Your task to perform on an android device: turn on priority inbox in the gmail app Image 0: 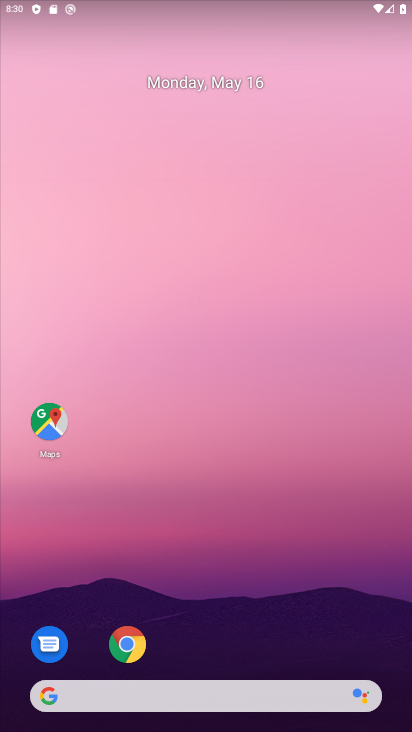
Step 0: drag from (170, 725) to (263, 0)
Your task to perform on an android device: turn on priority inbox in the gmail app Image 1: 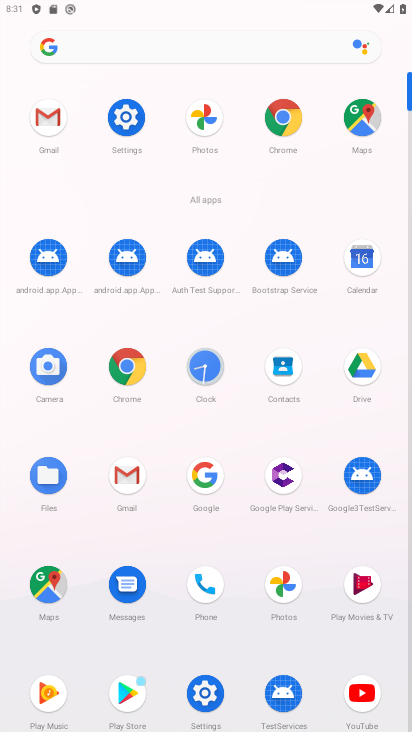
Step 1: click (134, 104)
Your task to perform on an android device: turn on priority inbox in the gmail app Image 2: 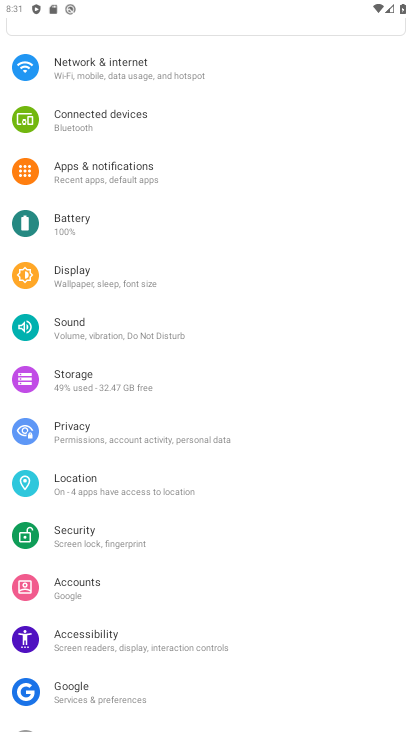
Step 2: press home button
Your task to perform on an android device: turn on priority inbox in the gmail app Image 3: 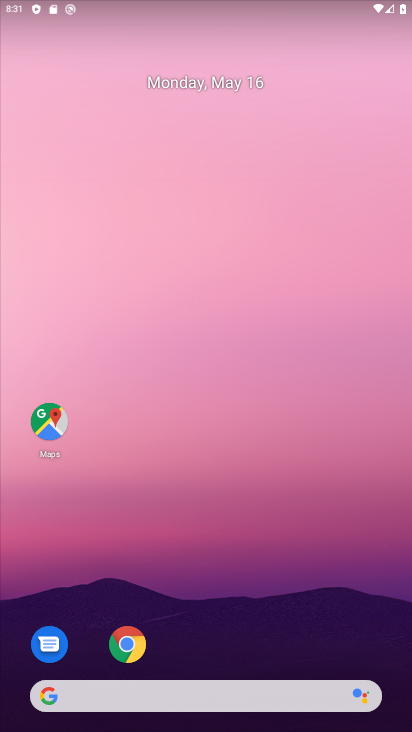
Step 3: drag from (198, 716) to (230, 43)
Your task to perform on an android device: turn on priority inbox in the gmail app Image 4: 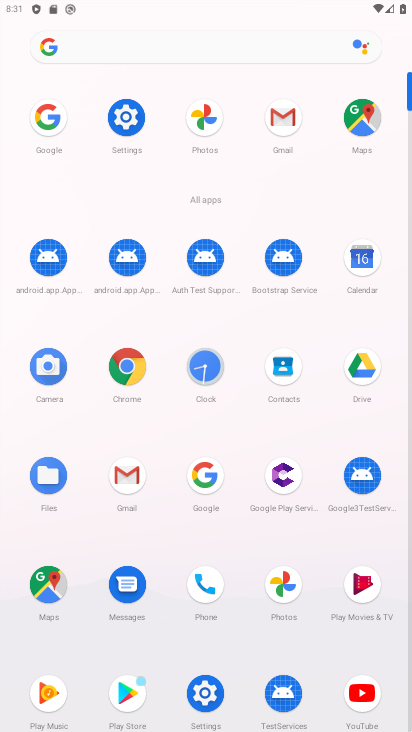
Step 4: click (288, 115)
Your task to perform on an android device: turn on priority inbox in the gmail app Image 5: 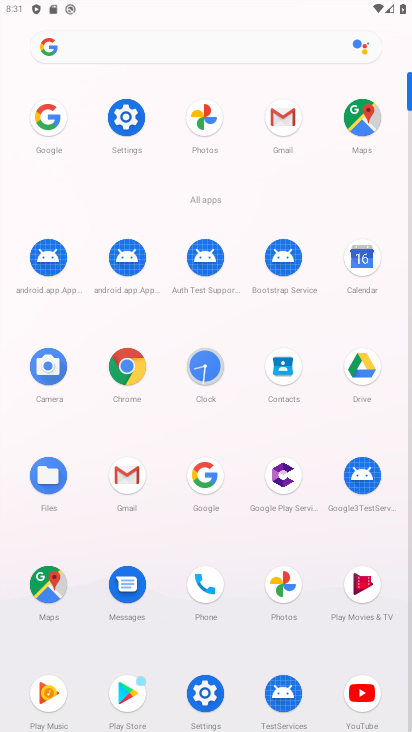
Step 5: click (288, 115)
Your task to perform on an android device: turn on priority inbox in the gmail app Image 6: 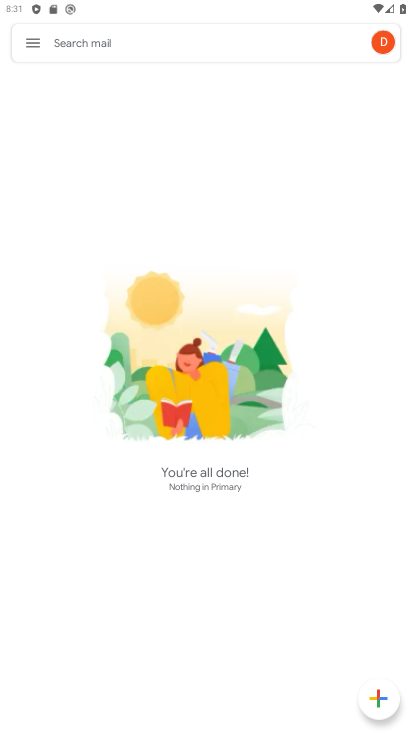
Step 6: click (35, 41)
Your task to perform on an android device: turn on priority inbox in the gmail app Image 7: 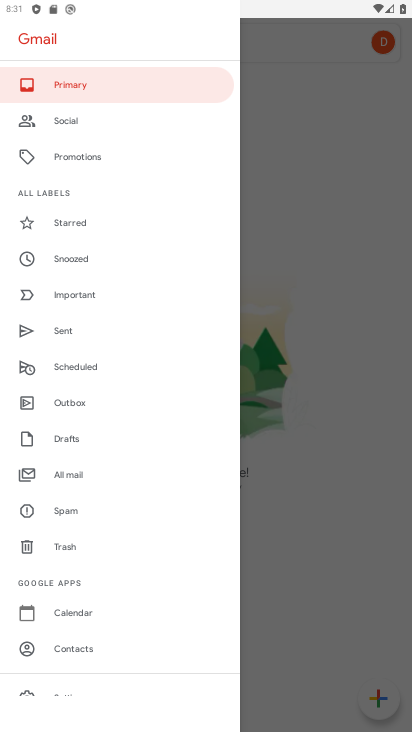
Step 7: drag from (121, 663) to (103, 110)
Your task to perform on an android device: turn on priority inbox in the gmail app Image 8: 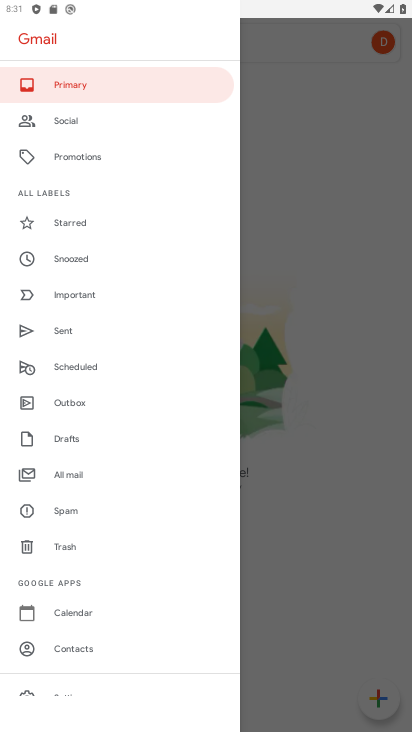
Step 8: drag from (82, 671) to (118, 7)
Your task to perform on an android device: turn on priority inbox in the gmail app Image 9: 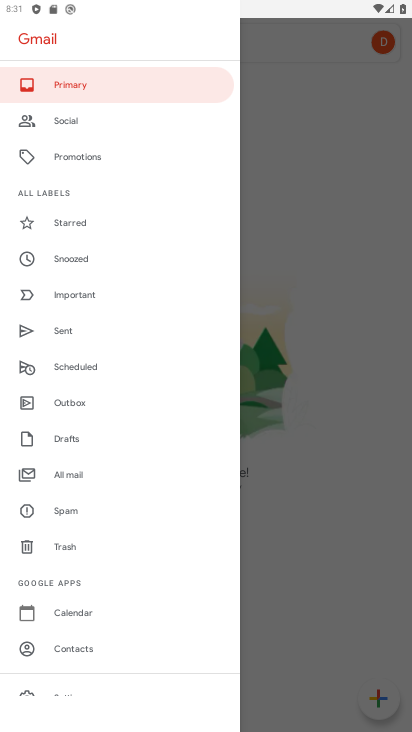
Step 9: drag from (59, 674) to (135, 45)
Your task to perform on an android device: turn on priority inbox in the gmail app Image 10: 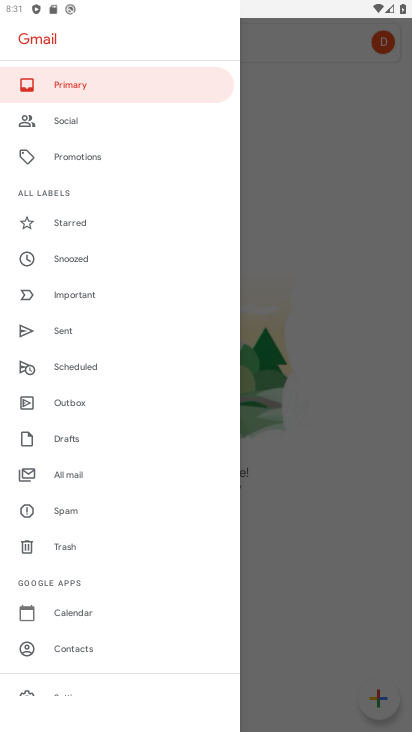
Step 10: drag from (60, 684) to (141, 3)
Your task to perform on an android device: turn on priority inbox in the gmail app Image 11: 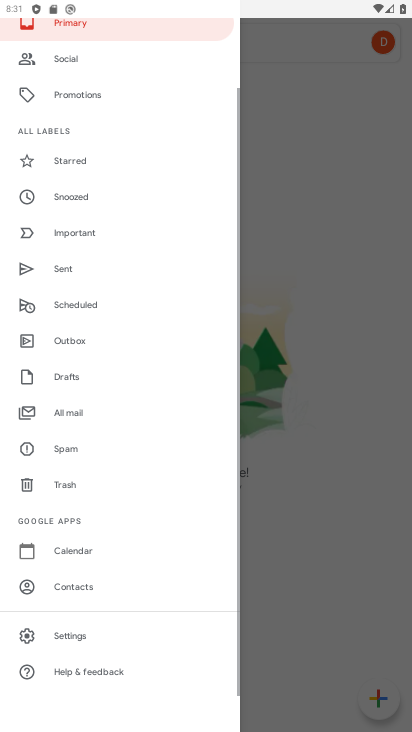
Step 11: click (73, 646)
Your task to perform on an android device: turn on priority inbox in the gmail app Image 12: 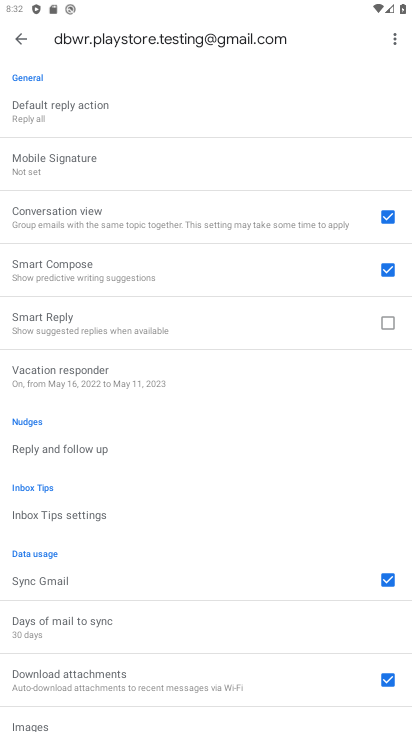
Step 12: drag from (175, 136) to (176, 692)
Your task to perform on an android device: turn on priority inbox in the gmail app Image 13: 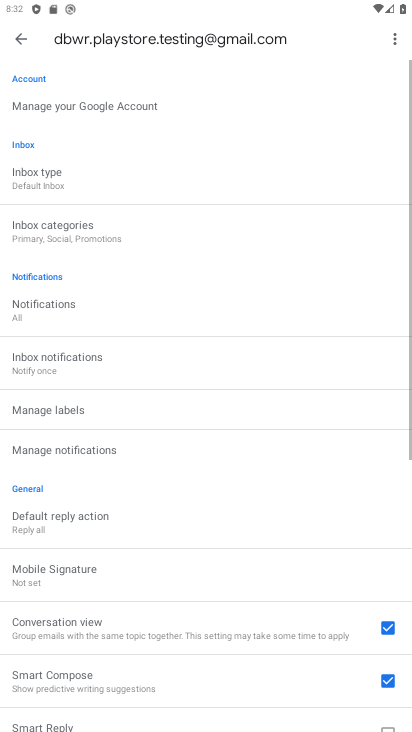
Step 13: click (43, 187)
Your task to perform on an android device: turn on priority inbox in the gmail app Image 14: 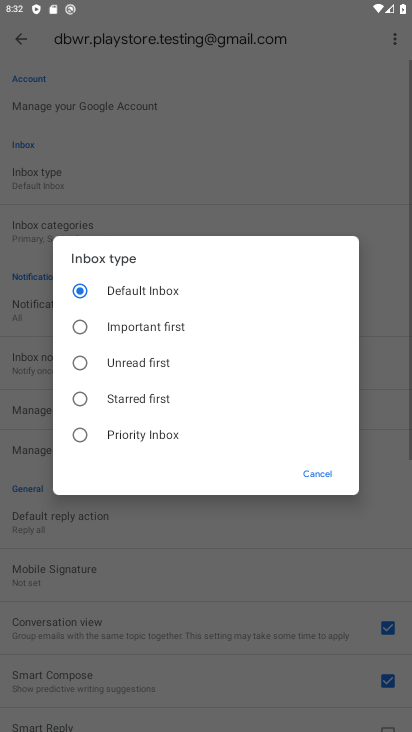
Step 14: click (143, 431)
Your task to perform on an android device: turn on priority inbox in the gmail app Image 15: 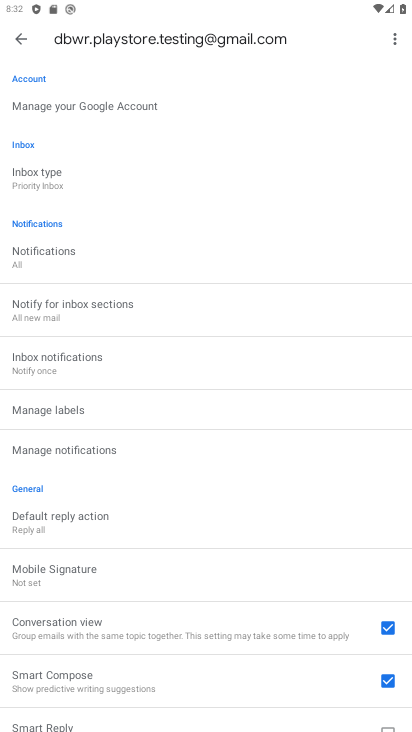
Step 15: task complete